Your task to perform on an android device: install app "Google Duo" Image 0: 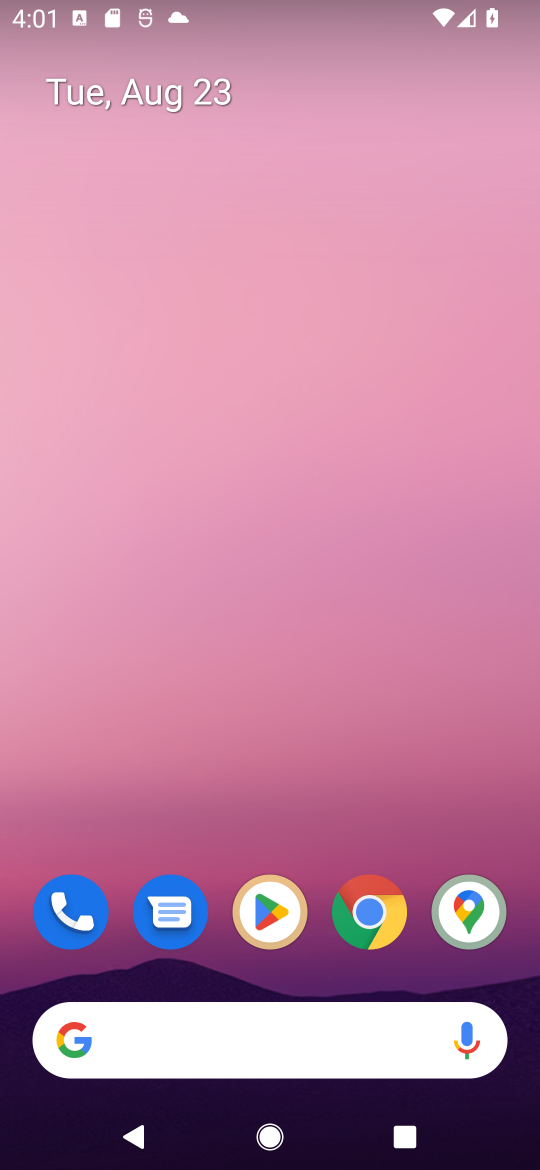
Step 0: drag from (205, 1055) to (284, 50)
Your task to perform on an android device: install app "Google Duo" Image 1: 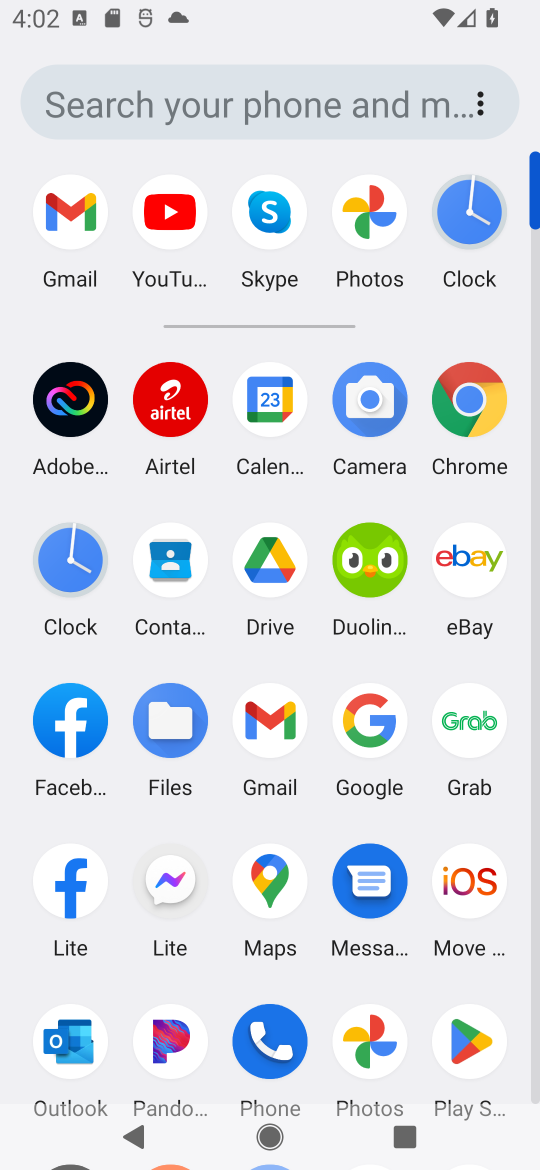
Step 1: click (469, 1043)
Your task to perform on an android device: install app "Google Duo" Image 2: 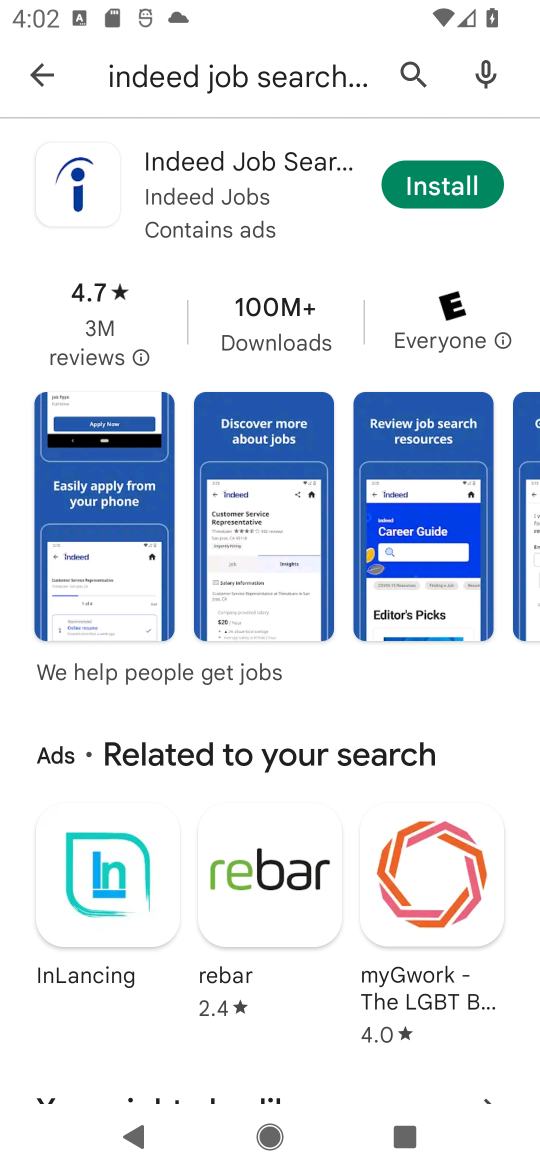
Step 2: press back button
Your task to perform on an android device: install app "Google Duo" Image 3: 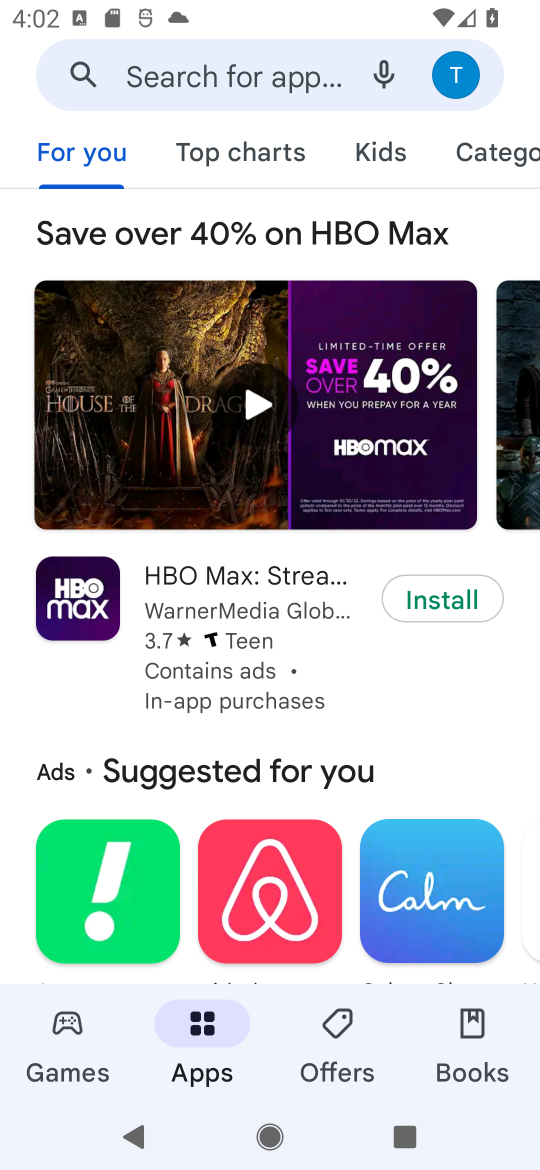
Step 3: click (330, 82)
Your task to perform on an android device: install app "Google Duo" Image 4: 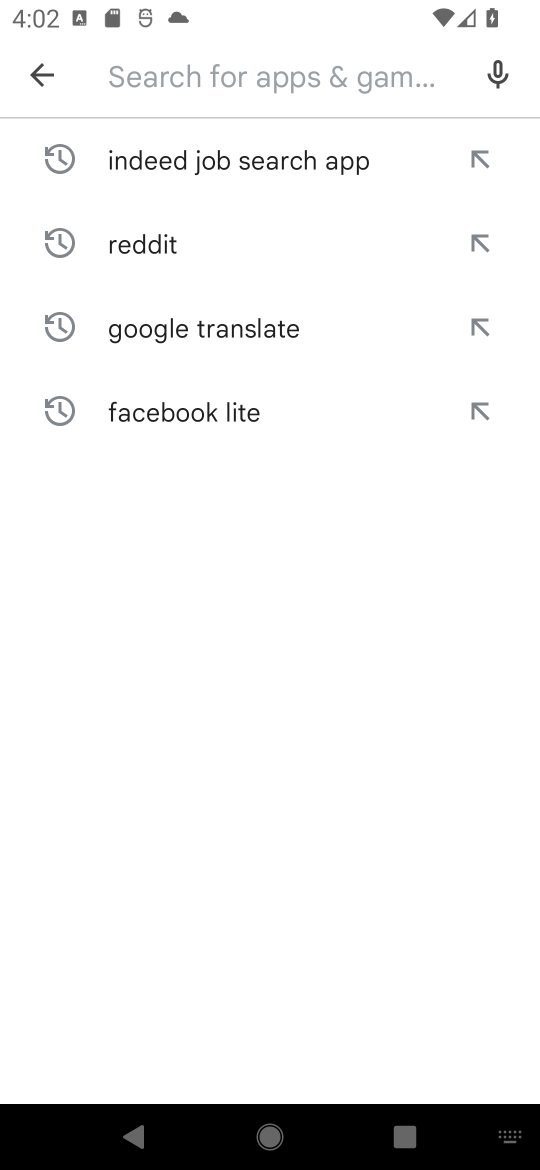
Step 4: type "Google Duo"
Your task to perform on an android device: install app "Google Duo" Image 5: 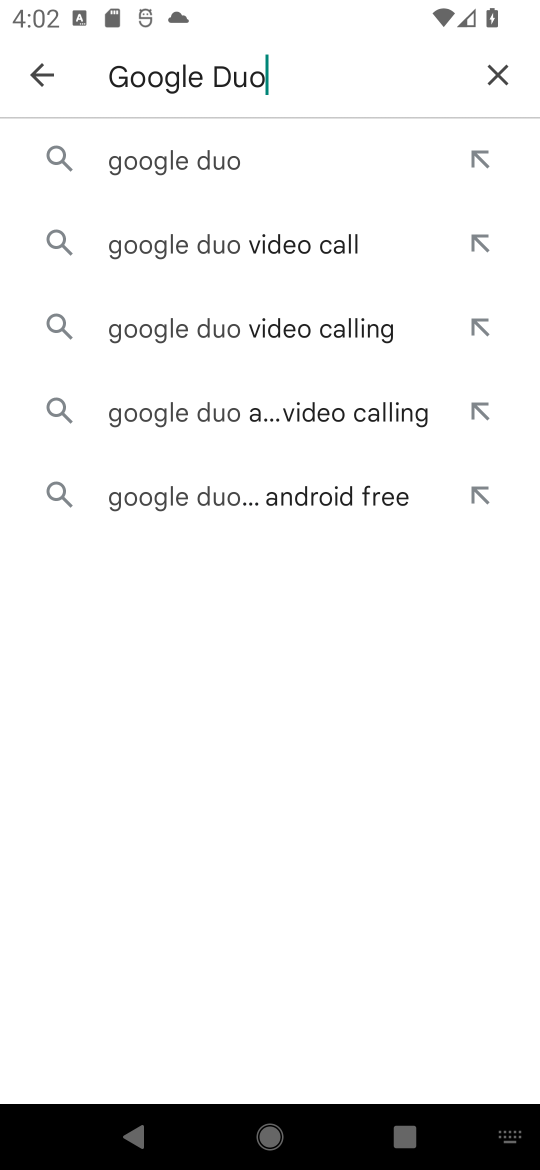
Step 5: click (221, 159)
Your task to perform on an android device: install app "Google Duo" Image 6: 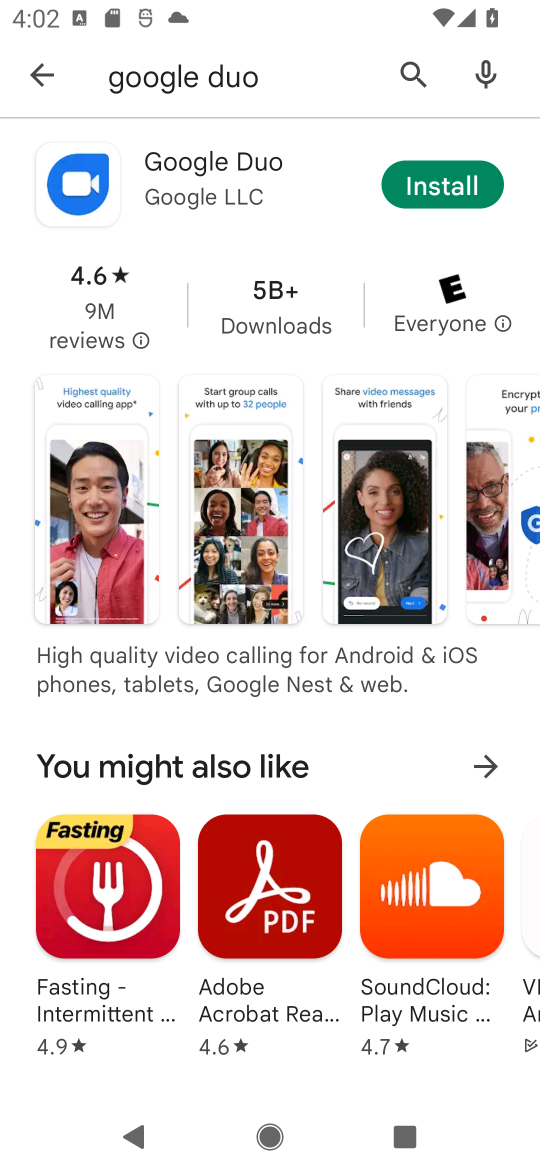
Step 6: click (421, 189)
Your task to perform on an android device: install app "Google Duo" Image 7: 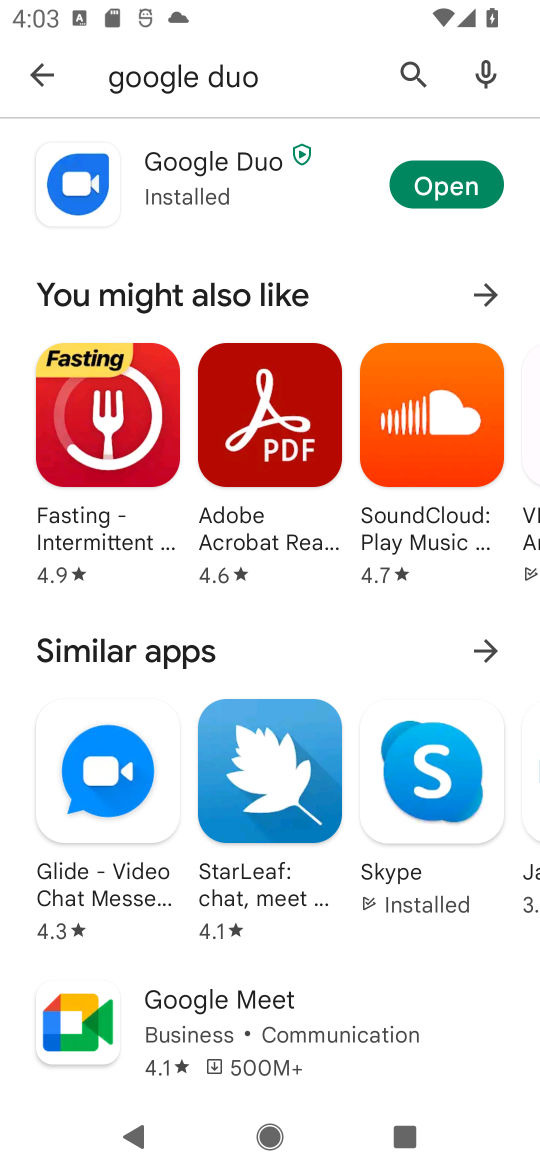
Step 7: task complete